Your task to perform on an android device: Go to eBay Image 0: 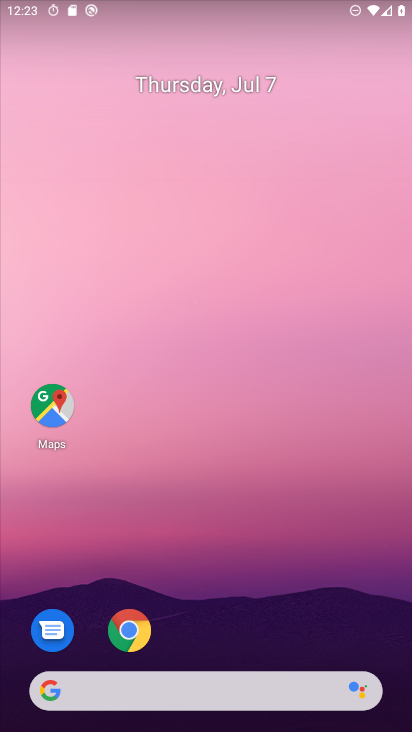
Step 0: click (113, 644)
Your task to perform on an android device: Go to eBay Image 1: 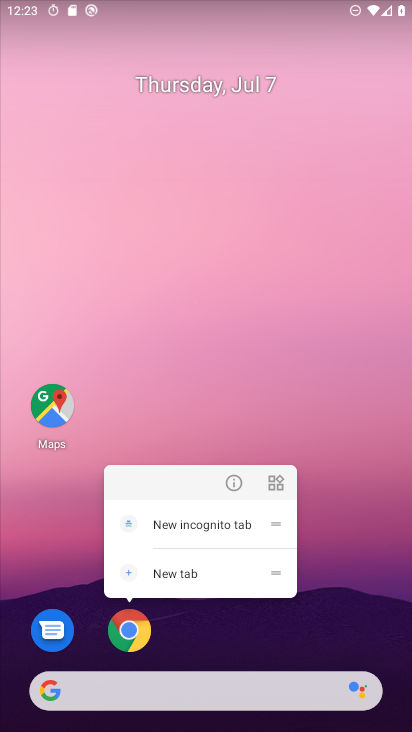
Step 1: click (143, 631)
Your task to perform on an android device: Go to eBay Image 2: 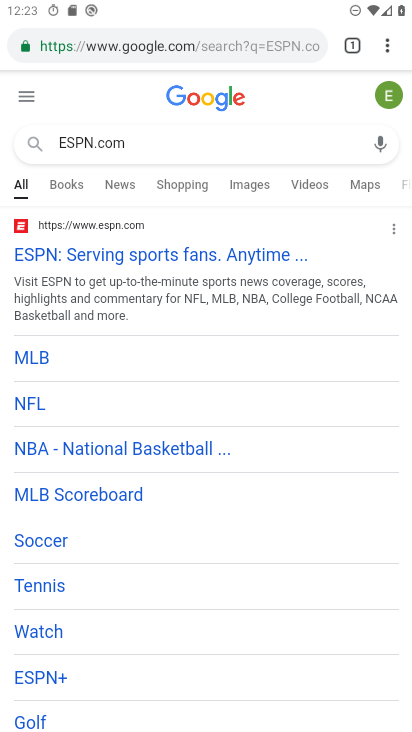
Step 2: click (263, 42)
Your task to perform on an android device: Go to eBay Image 3: 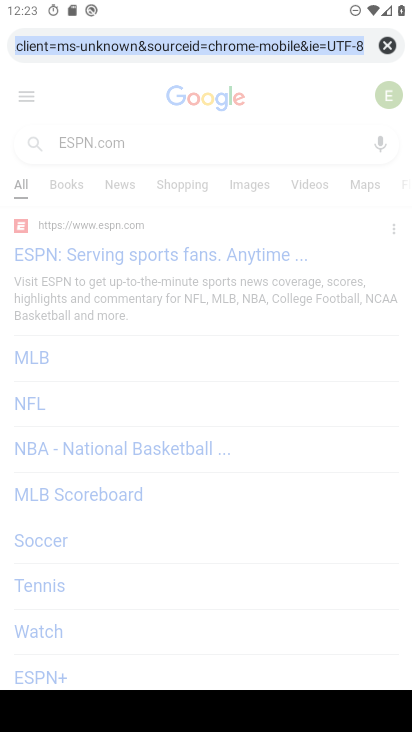
Step 3: type "eBay"
Your task to perform on an android device: Go to eBay Image 4: 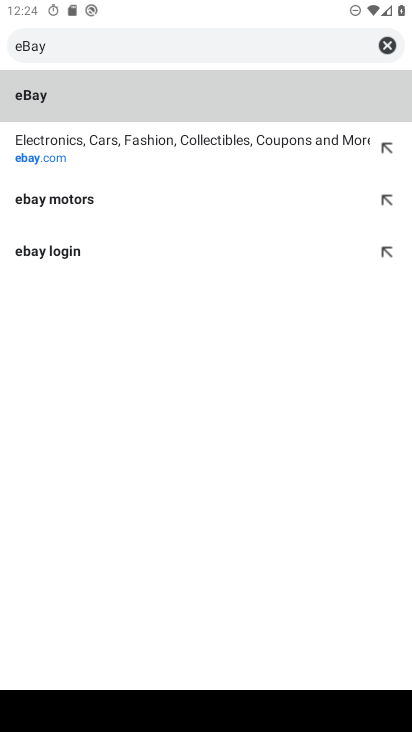
Step 4: click (72, 85)
Your task to perform on an android device: Go to eBay Image 5: 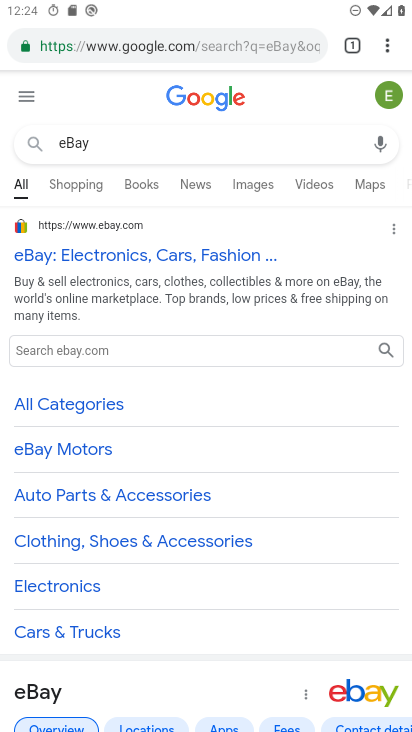
Step 5: task complete